Your task to perform on an android device: Open Youtube and go to "Your channel" Image 0: 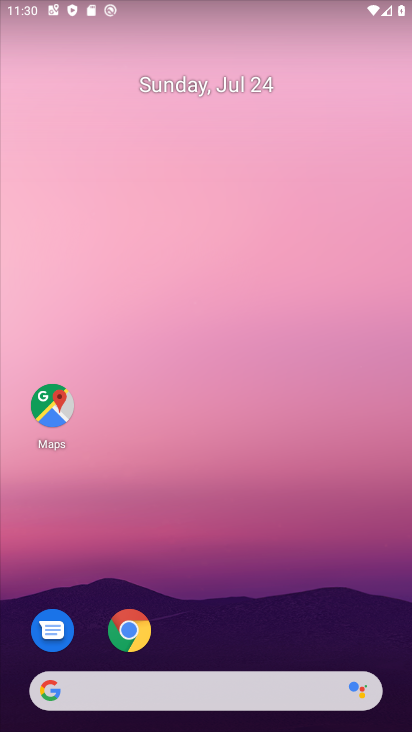
Step 0: click (241, 55)
Your task to perform on an android device: Open Youtube and go to "Your channel" Image 1: 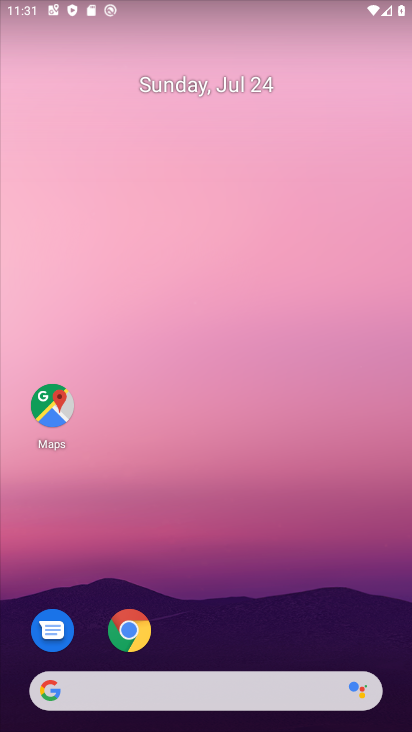
Step 1: drag from (198, 592) to (197, 175)
Your task to perform on an android device: Open Youtube and go to "Your channel" Image 2: 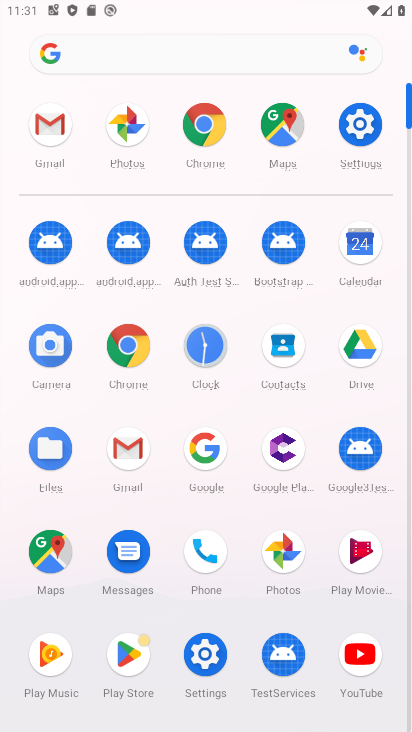
Step 2: click (367, 655)
Your task to perform on an android device: Open Youtube and go to "Your channel" Image 3: 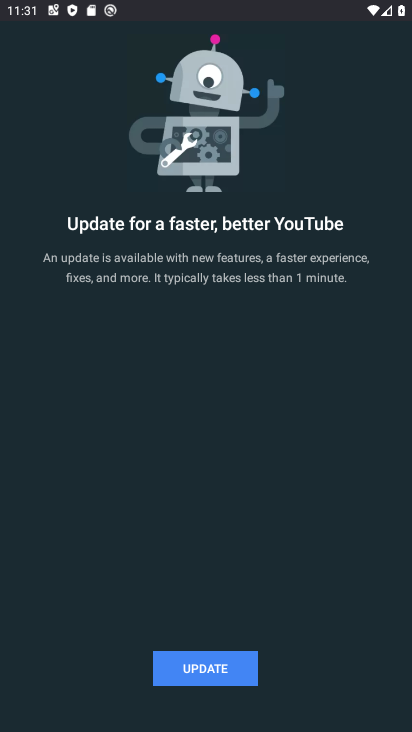
Step 3: click (181, 672)
Your task to perform on an android device: Open Youtube and go to "Your channel" Image 4: 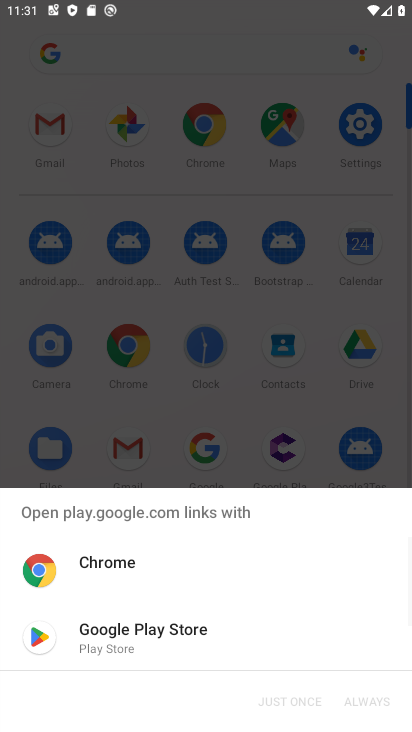
Step 4: click (137, 624)
Your task to perform on an android device: Open Youtube and go to "Your channel" Image 5: 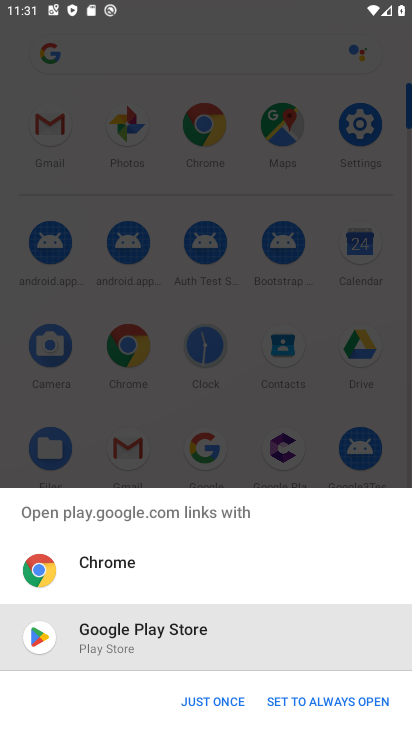
Step 5: click (316, 691)
Your task to perform on an android device: Open Youtube and go to "Your channel" Image 6: 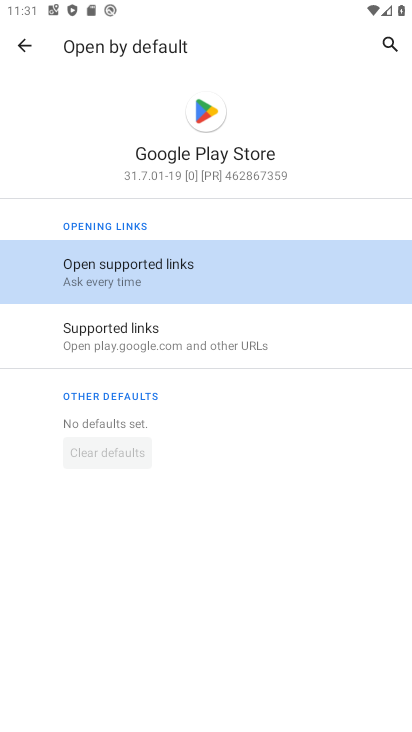
Step 6: click (121, 260)
Your task to perform on an android device: Open Youtube and go to "Your channel" Image 7: 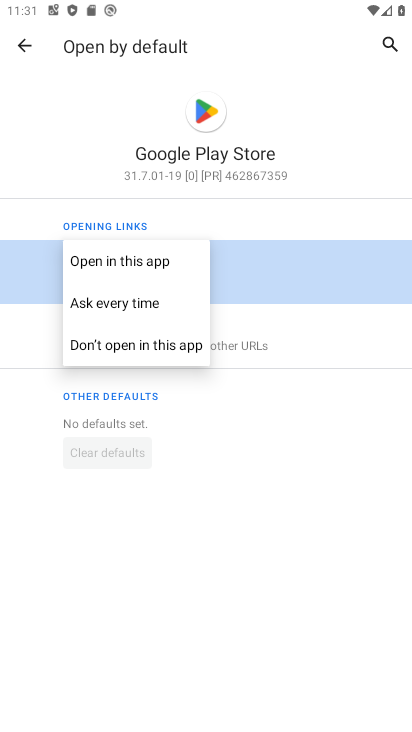
Step 7: click (116, 258)
Your task to perform on an android device: Open Youtube and go to "Your channel" Image 8: 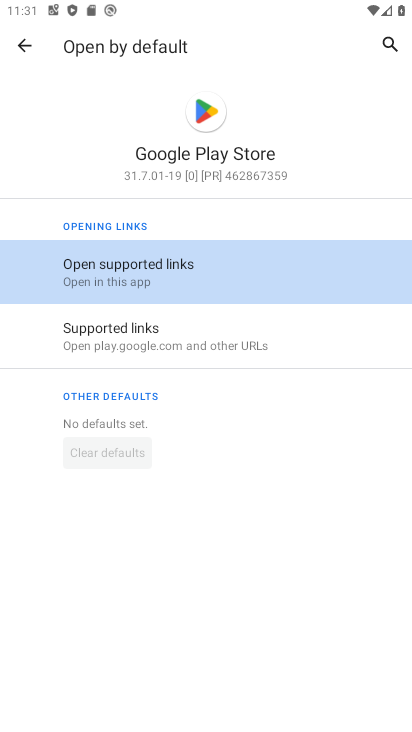
Step 8: click (110, 261)
Your task to perform on an android device: Open Youtube and go to "Your channel" Image 9: 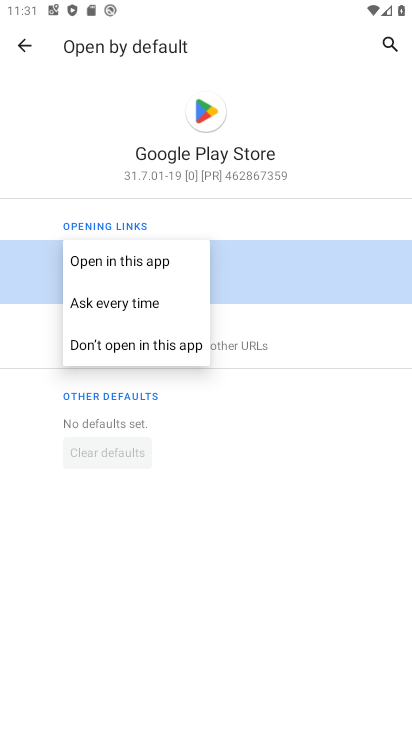
Step 9: click (101, 254)
Your task to perform on an android device: Open Youtube and go to "Your channel" Image 10: 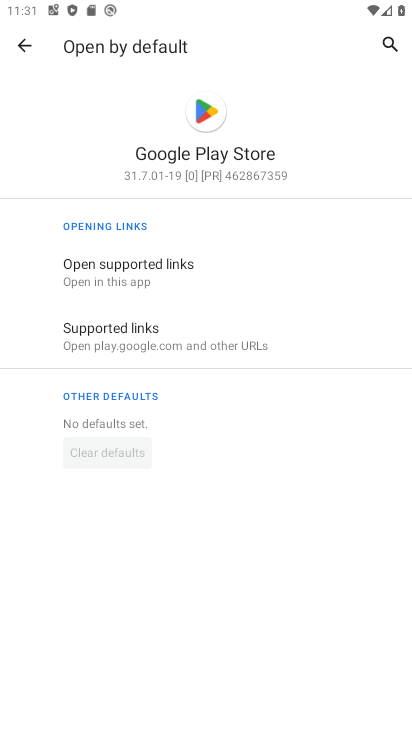
Step 10: click (21, 51)
Your task to perform on an android device: Open Youtube and go to "Your channel" Image 11: 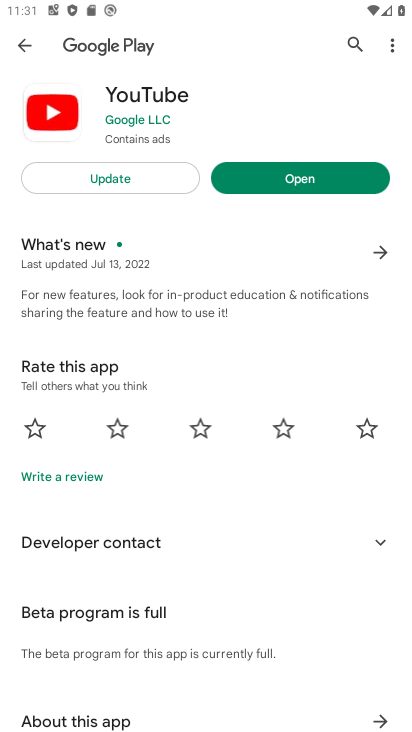
Step 11: click (109, 180)
Your task to perform on an android device: Open Youtube and go to "Your channel" Image 12: 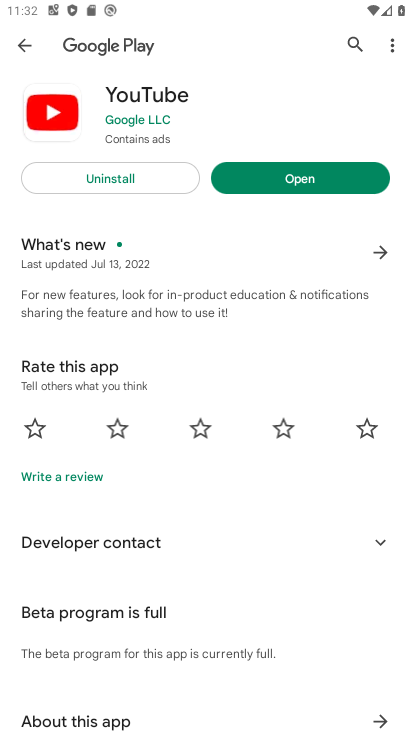
Step 12: click (240, 178)
Your task to perform on an android device: Open Youtube and go to "Your channel" Image 13: 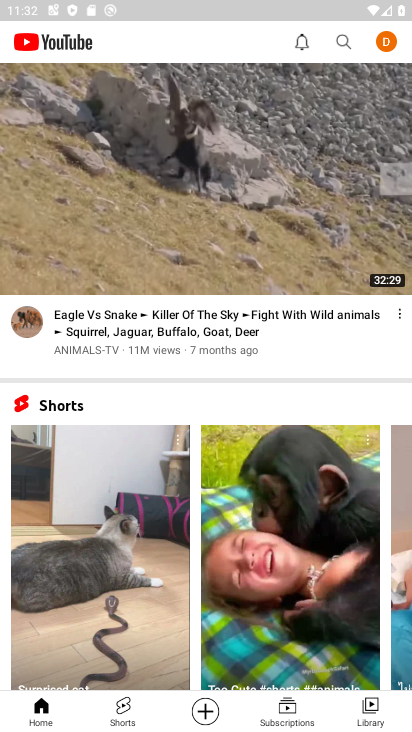
Step 13: click (392, 39)
Your task to perform on an android device: Open Youtube and go to "Your channel" Image 14: 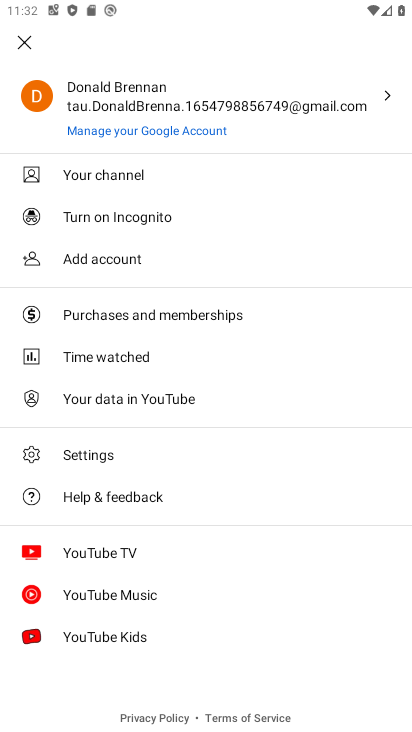
Step 14: click (97, 169)
Your task to perform on an android device: Open Youtube and go to "Your channel" Image 15: 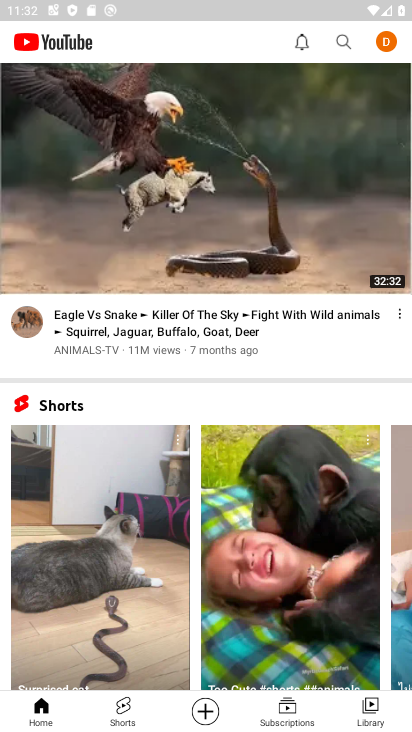
Step 15: task complete